Your task to perform on an android device: stop showing notifications on the lock screen Image 0: 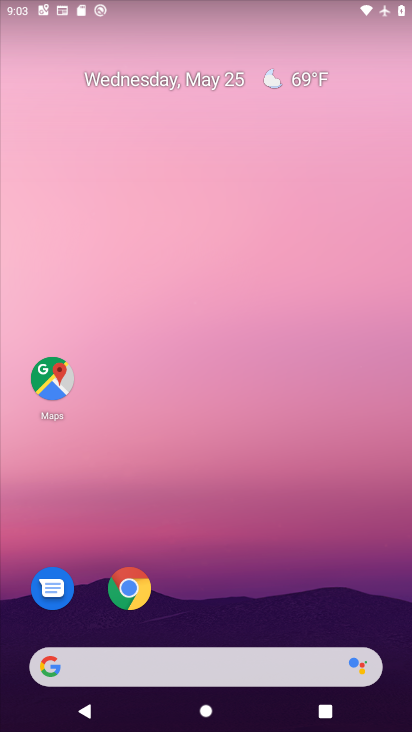
Step 0: drag from (376, 598) to (384, 223)
Your task to perform on an android device: stop showing notifications on the lock screen Image 1: 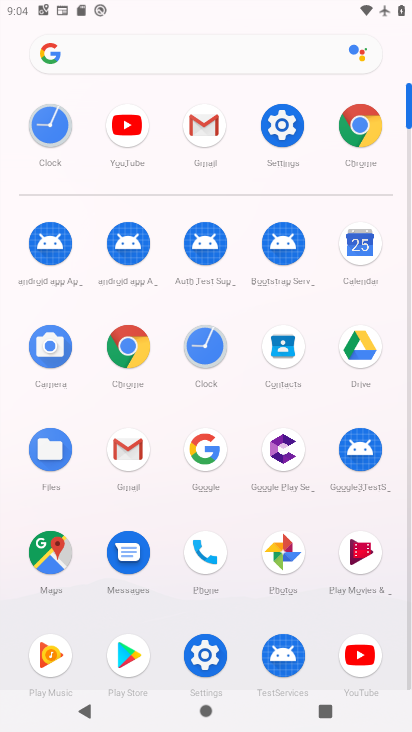
Step 1: drag from (240, 512) to (253, 272)
Your task to perform on an android device: stop showing notifications on the lock screen Image 2: 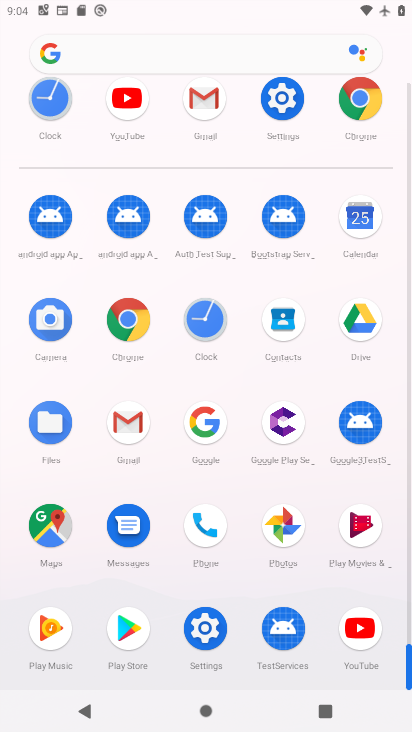
Step 2: drag from (240, 171) to (244, 406)
Your task to perform on an android device: stop showing notifications on the lock screen Image 3: 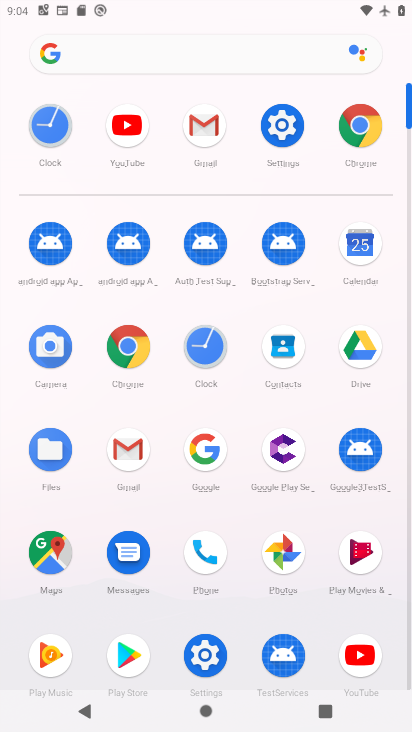
Step 3: drag from (242, 527) to (244, 281)
Your task to perform on an android device: stop showing notifications on the lock screen Image 4: 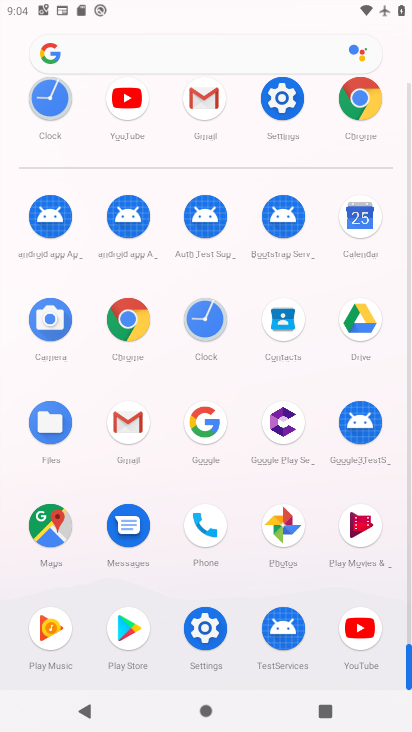
Step 4: click (213, 628)
Your task to perform on an android device: stop showing notifications on the lock screen Image 5: 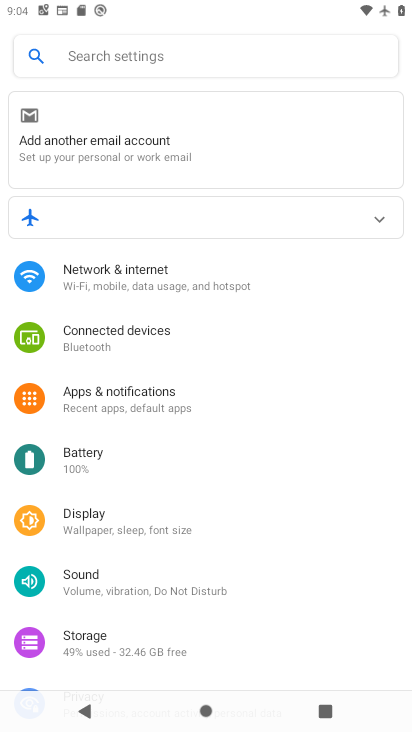
Step 5: drag from (353, 595) to (340, 453)
Your task to perform on an android device: stop showing notifications on the lock screen Image 6: 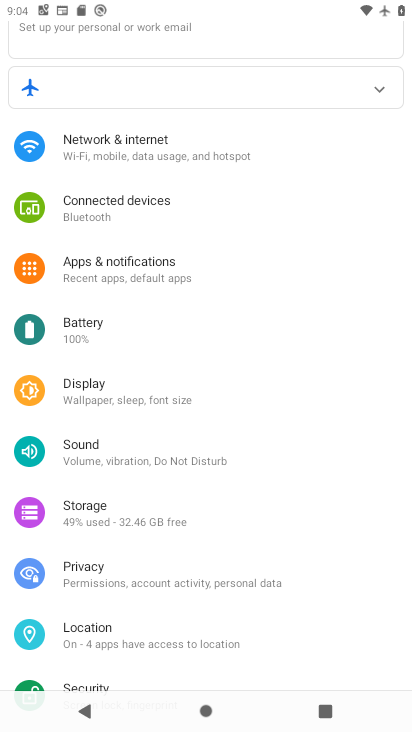
Step 6: drag from (354, 609) to (372, 488)
Your task to perform on an android device: stop showing notifications on the lock screen Image 7: 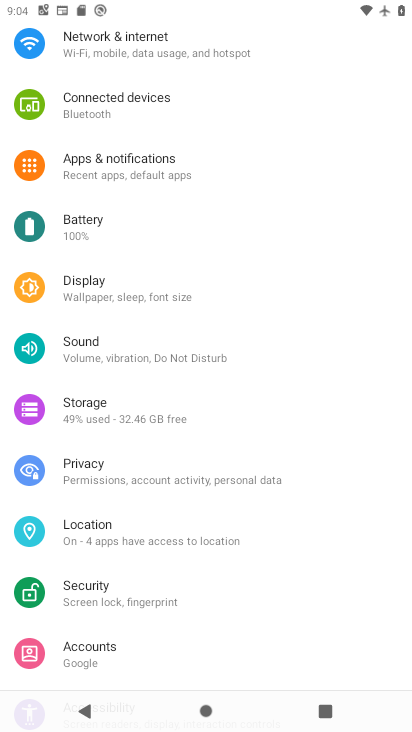
Step 7: drag from (345, 610) to (343, 477)
Your task to perform on an android device: stop showing notifications on the lock screen Image 8: 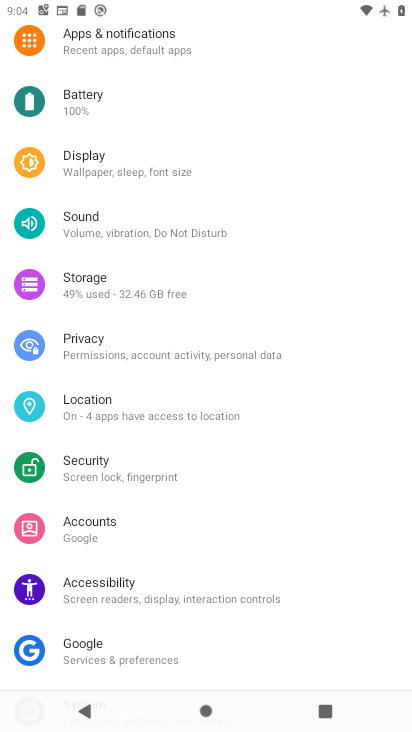
Step 8: drag from (352, 639) to (368, 498)
Your task to perform on an android device: stop showing notifications on the lock screen Image 9: 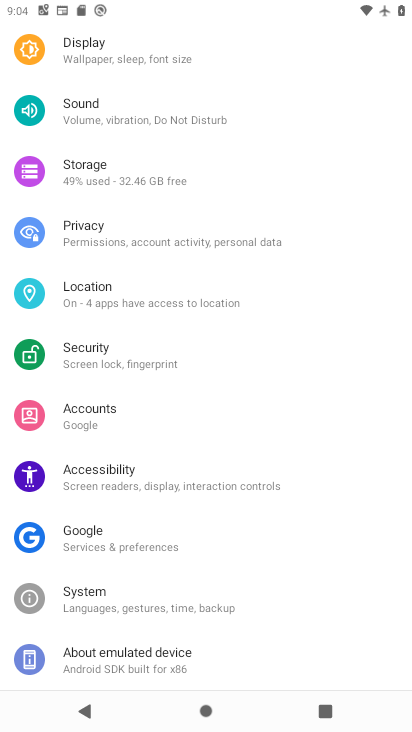
Step 9: drag from (343, 635) to (340, 522)
Your task to perform on an android device: stop showing notifications on the lock screen Image 10: 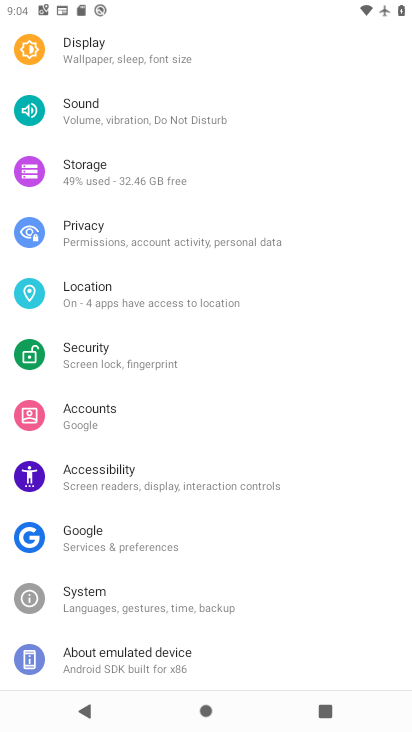
Step 10: drag from (357, 406) to (350, 499)
Your task to perform on an android device: stop showing notifications on the lock screen Image 11: 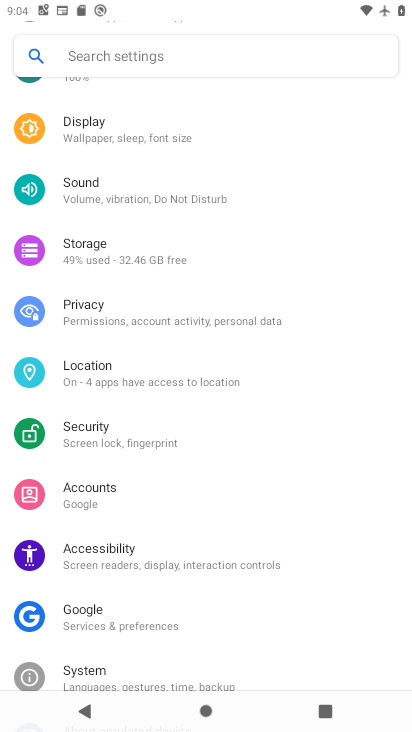
Step 11: drag from (366, 396) to (374, 505)
Your task to perform on an android device: stop showing notifications on the lock screen Image 12: 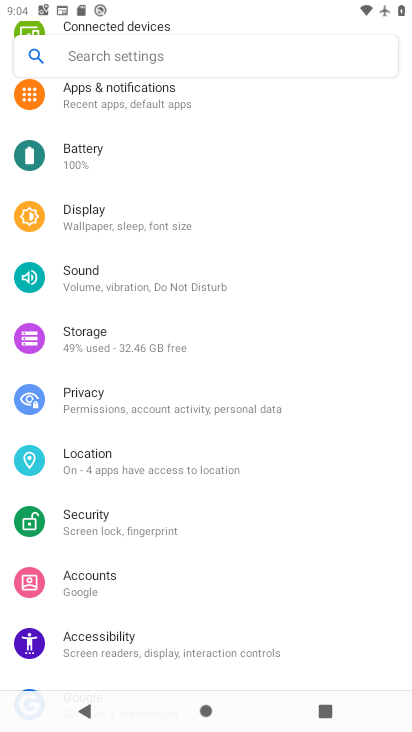
Step 12: drag from (384, 369) to (372, 460)
Your task to perform on an android device: stop showing notifications on the lock screen Image 13: 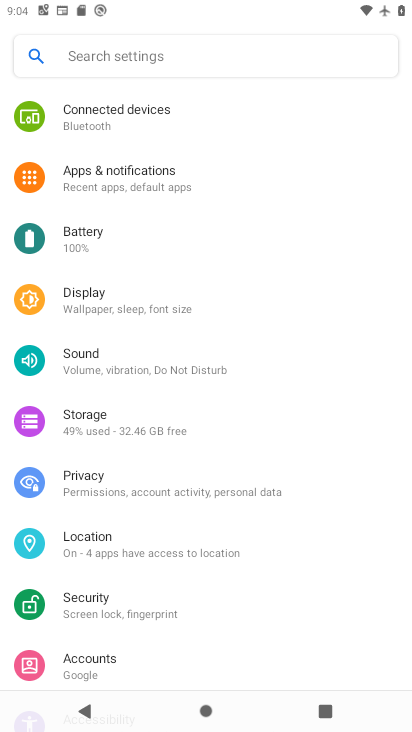
Step 13: drag from (362, 361) to (361, 449)
Your task to perform on an android device: stop showing notifications on the lock screen Image 14: 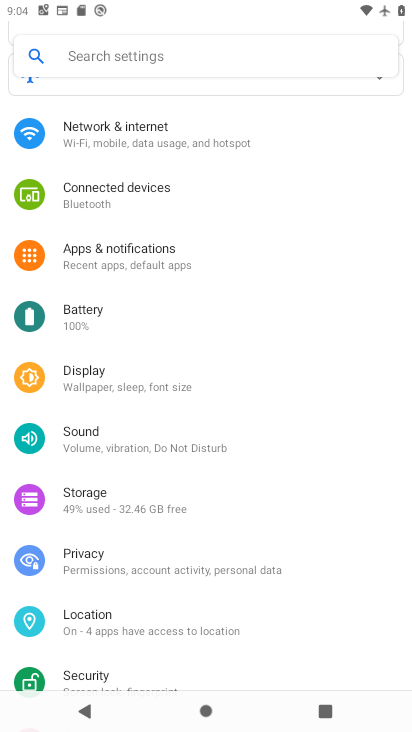
Step 14: drag from (359, 373) to (370, 454)
Your task to perform on an android device: stop showing notifications on the lock screen Image 15: 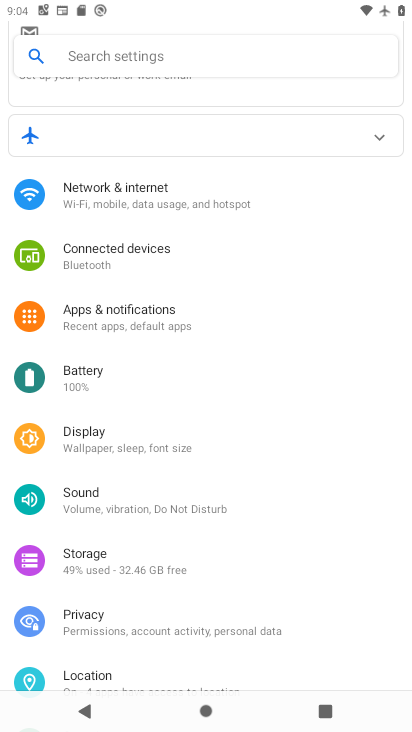
Step 15: drag from (362, 357) to (363, 447)
Your task to perform on an android device: stop showing notifications on the lock screen Image 16: 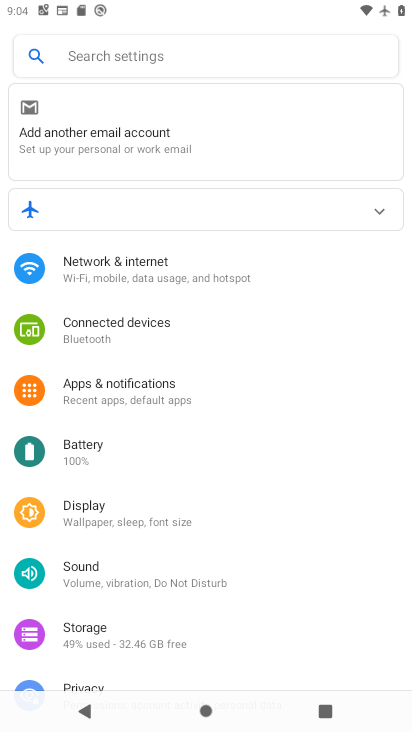
Step 16: drag from (353, 341) to (360, 489)
Your task to perform on an android device: stop showing notifications on the lock screen Image 17: 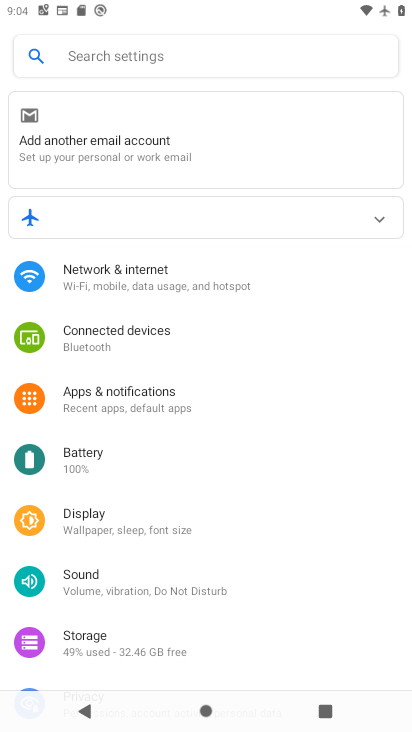
Step 17: click (211, 413)
Your task to perform on an android device: stop showing notifications on the lock screen Image 18: 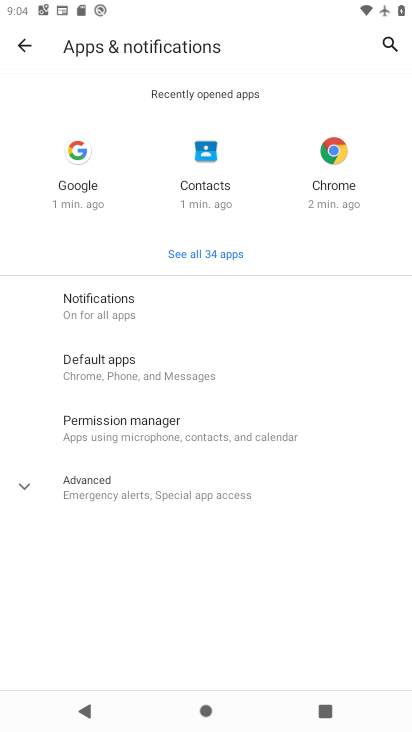
Step 18: click (162, 303)
Your task to perform on an android device: stop showing notifications on the lock screen Image 19: 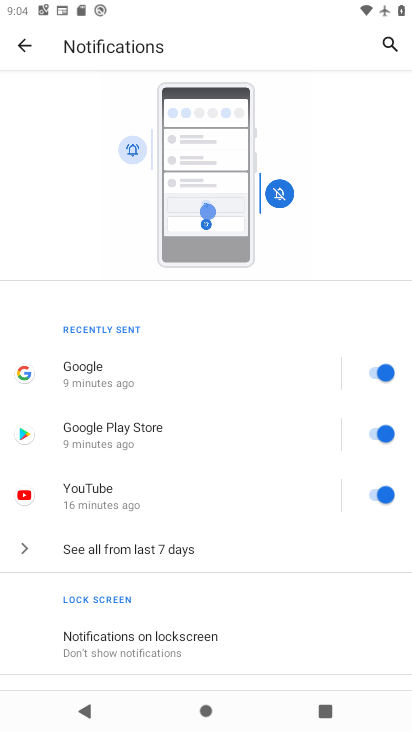
Step 19: drag from (261, 603) to (272, 404)
Your task to perform on an android device: stop showing notifications on the lock screen Image 20: 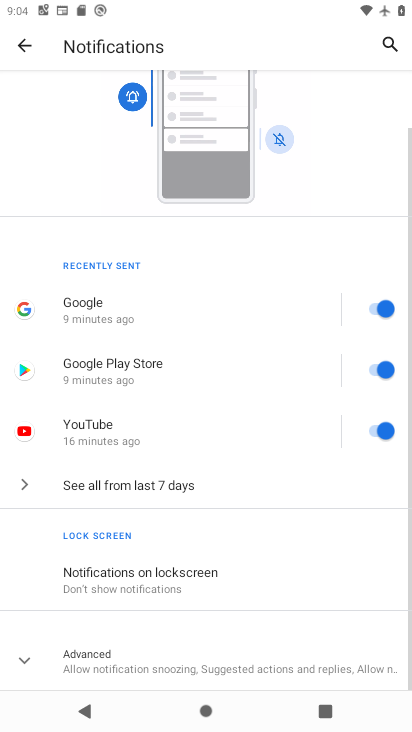
Step 20: click (227, 583)
Your task to perform on an android device: stop showing notifications on the lock screen Image 21: 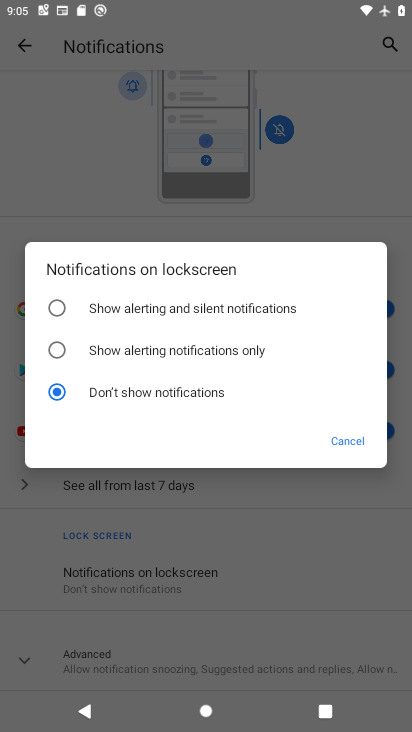
Step 21: task complete